Your task to perform on an android device: Show me popular videos on Youtube Image 0: 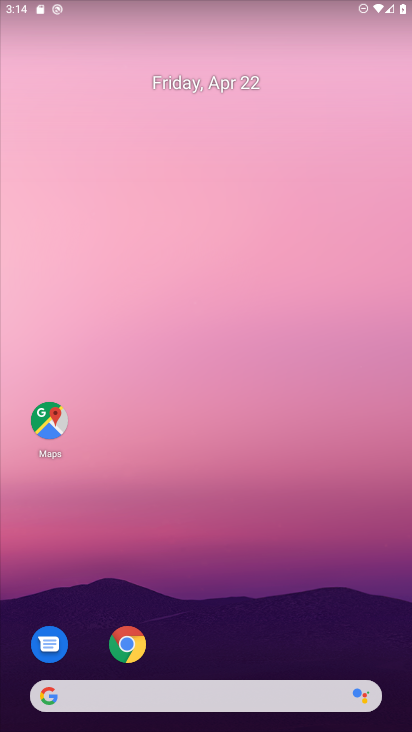
Step 0: drag from (291, 640) to (238, 111)
Your task to perform on an android device: Show me popular videos on Youtube Image 1: 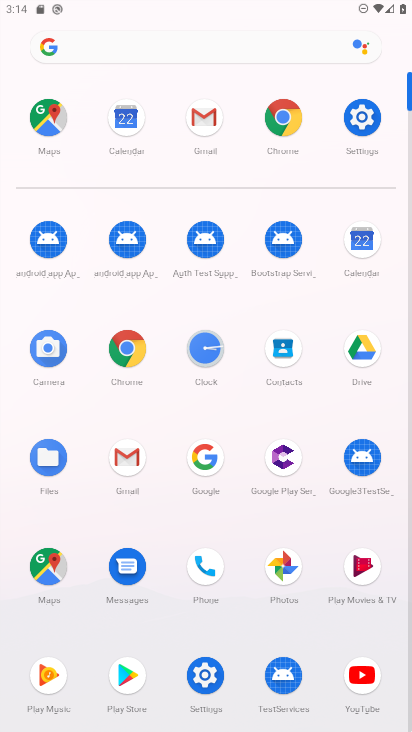
Step 1: click (359, 676)
Your task to perform on an android device: Show me popular videos on Youtube Image 2: 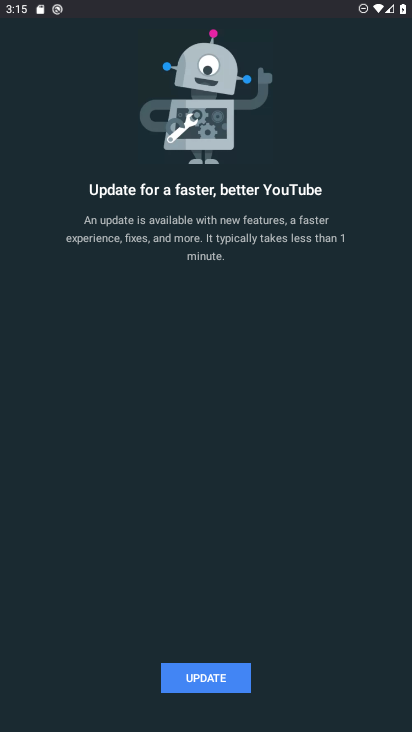
Step 2: task complete